Your task to perform on an android device: show emergency info Image 0: 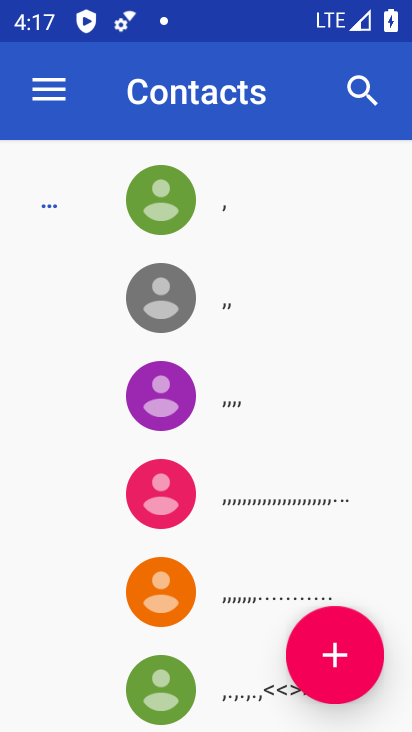
Step 0: press home button
Your task to perform on an android device: show emergency info Image 1: 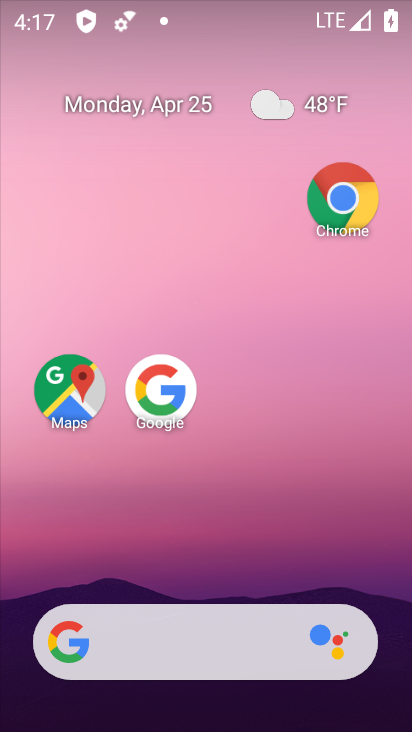
Step 1: drag from (148, 647) to (311, 122)
Your task to perform on an android device: show emergency info Image 2: 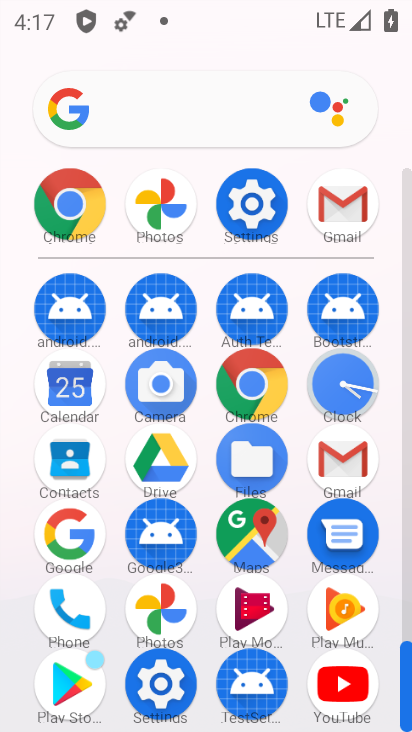
Step 2: click (248, 209)
Your task to perform on an android device: show emergency info Image 3: 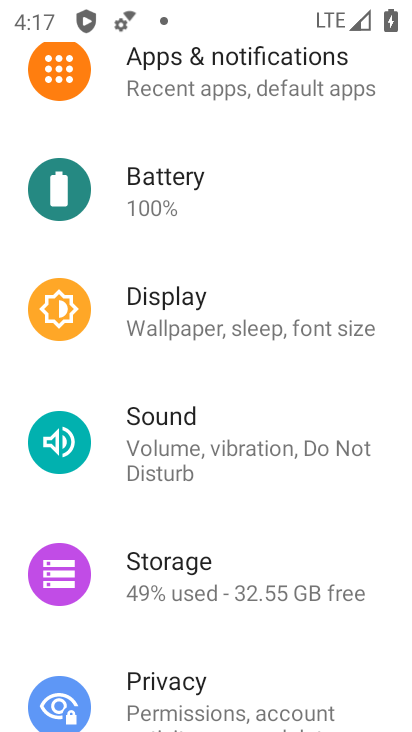
Step 3: drag from (184, 661) to (337, 127)
Your task to perform on an android device: show emergency info Image 4: 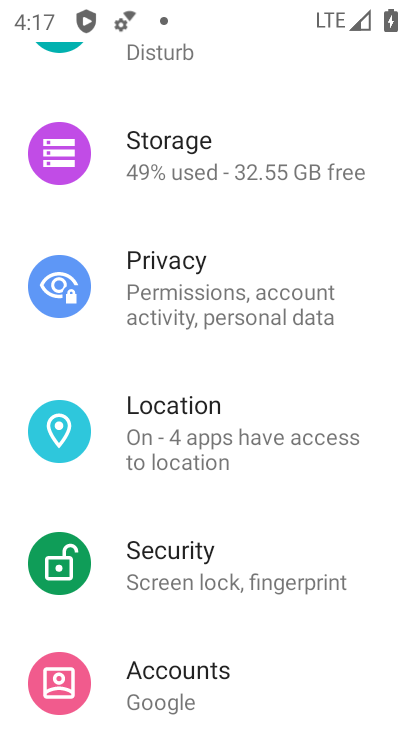
Step 4: drag from (162, 656) to (383, 33)
Your task to perform on an android device: show emergency info Image 5: 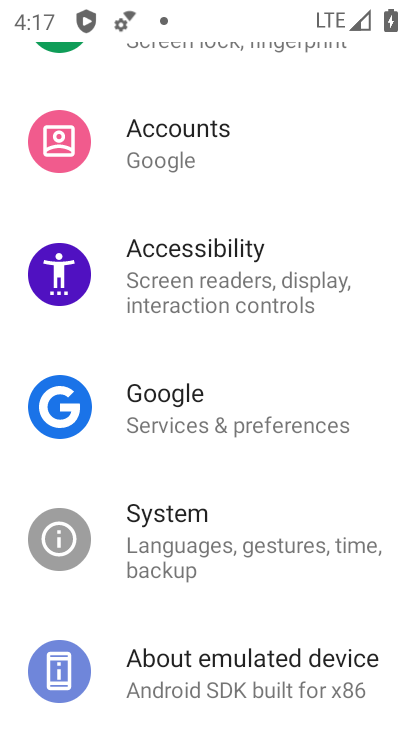
Step 5: drag from (213, 612) to (384, 78)
Your task to perform on an android device: show emergency info Image 6: 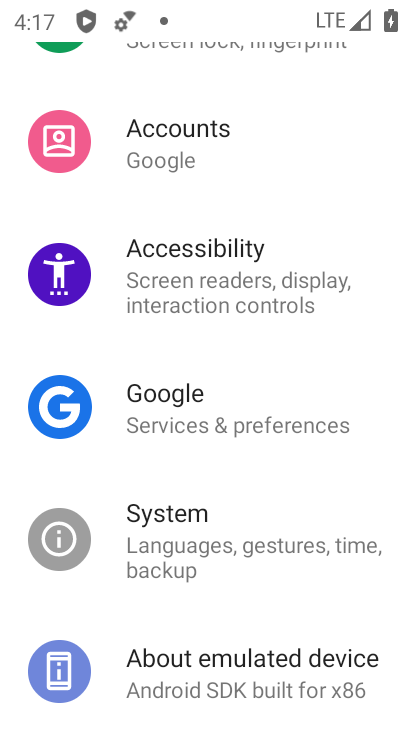
Step 6: click (195, 653)
Your task to perform on an android device: show emergency info Image 7: 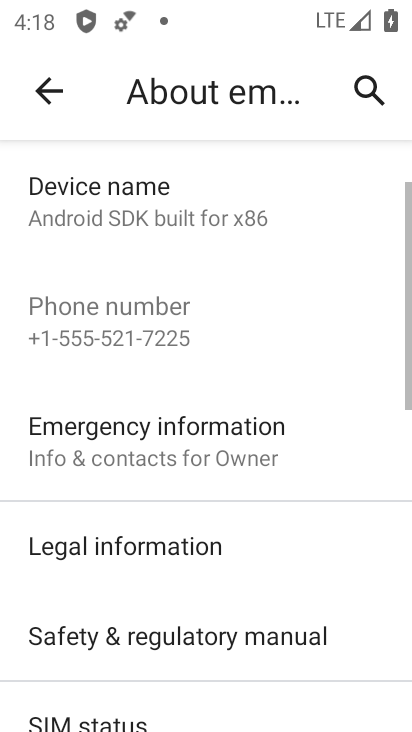
Step 7: click (184, 438)
Your task to perform on an android device: show emergency info Image 8: 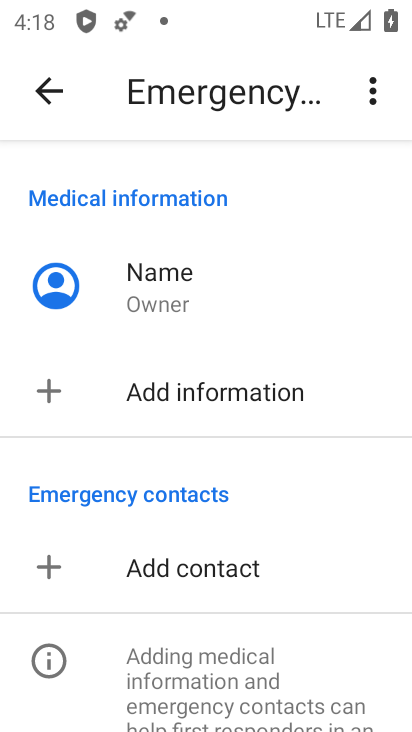
Step 8: task complete